Your task to perform on an android device: turn off improve location accuracy Image 0: 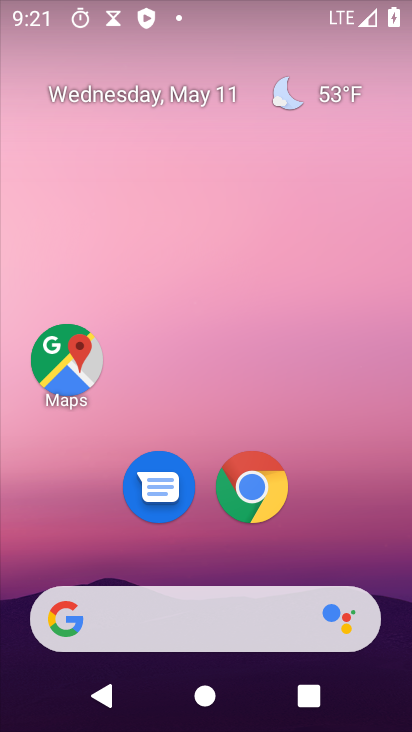
Step 0: drag from (364, 521) to (349, 147)
Your task to perform on an android device: turn off improve location accuracy Image 1: 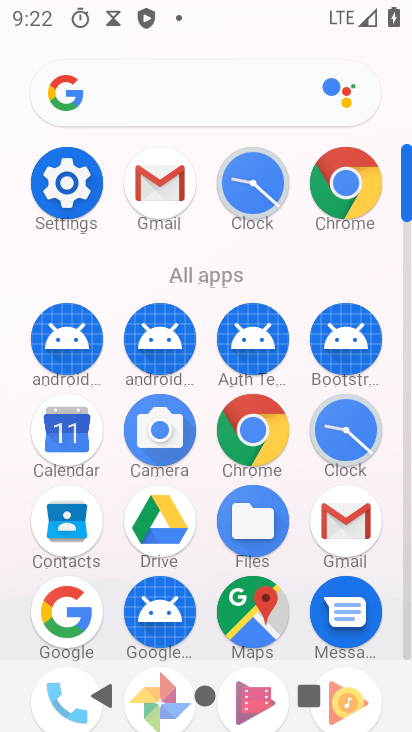
Step 1: click (65, 182)
Your task to perform on an android device: turn off improve location accuracy Image 2: 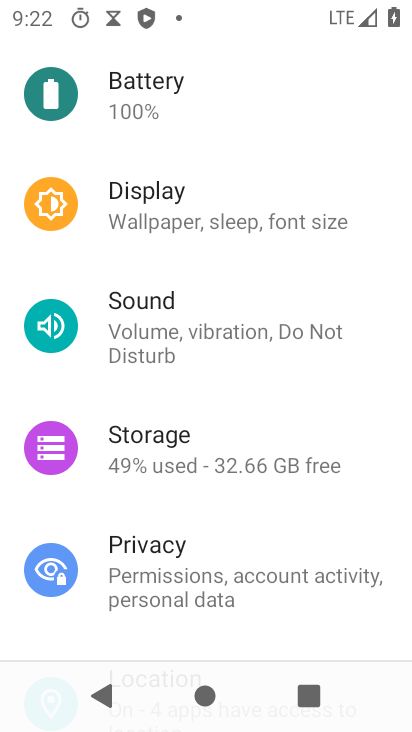
Step 2: drag from (233, 435) to (274, 259)
Your task to perform on an android device: turn off improve location accuracy Image 3: 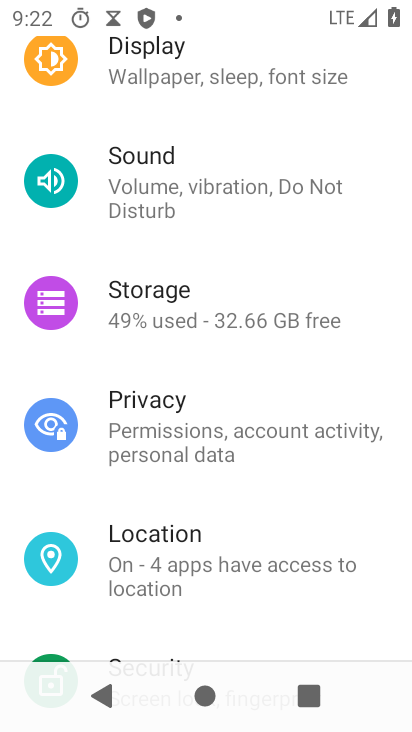
Step 3: click (175, 536)
Your task to perform on an android device: turn off improve location accuracy Image 4: 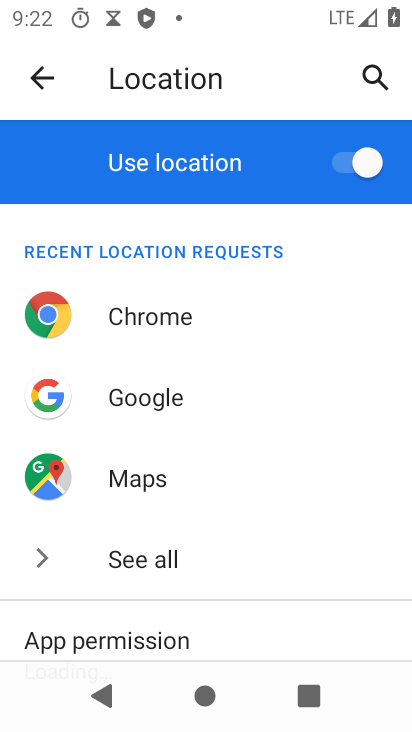
Step 4: drag from (196, 574) to (274, 367)
Your task to perform on an android device: turn off improve location accuracy Image 5: 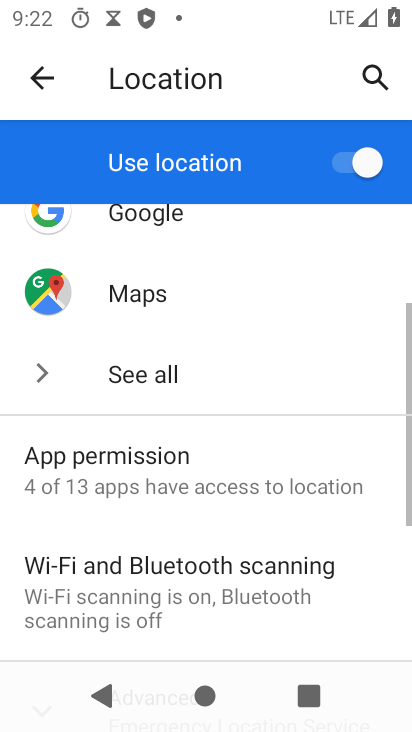
Step 5: drag from (202, 513) to (281, 333)
Your task to perform on an android device: turn off improve location accuracy Image 6: 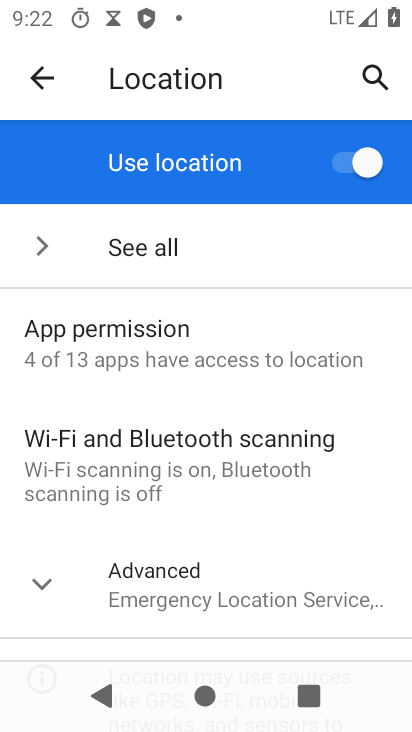
Step 6: click (240, 593)
Your task to perform on an android device: turn off improve location accuracy Image 7: 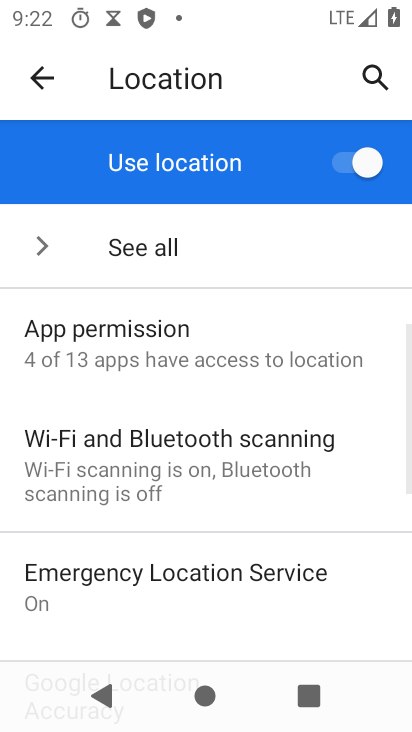
Step 7: drag from (224, 604) to (242, 380)
Your task to perform on an android device: turn off improve location accuracy Image 8: 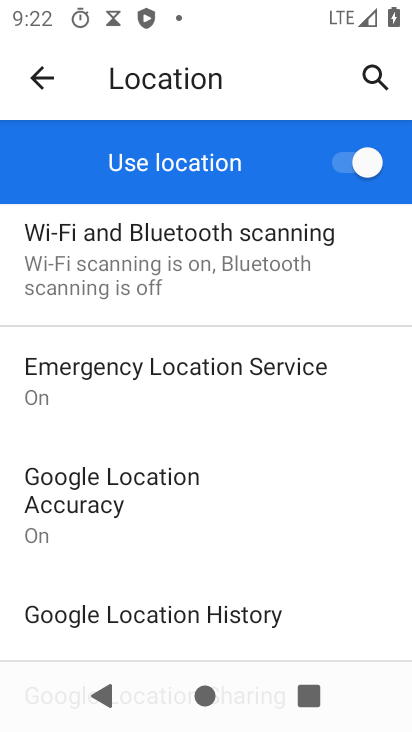
Step 8: click (95, 484)
Your task to perform on an android device: turn off improve location accuracy Image 9: 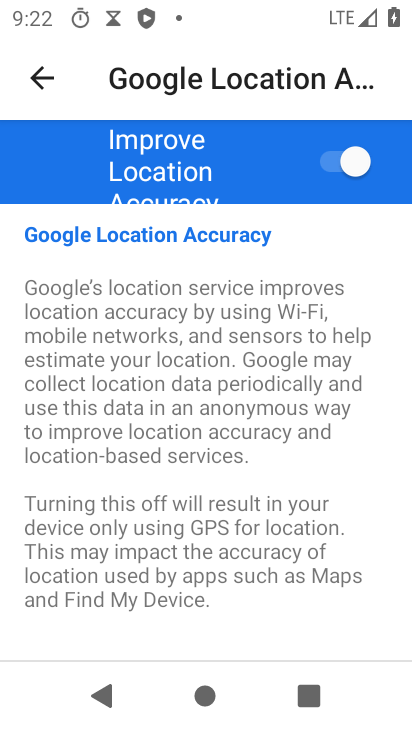
Step 9: click (353, 155)
Your task to perform on an android device: turn off improve location accuracy Image 10: 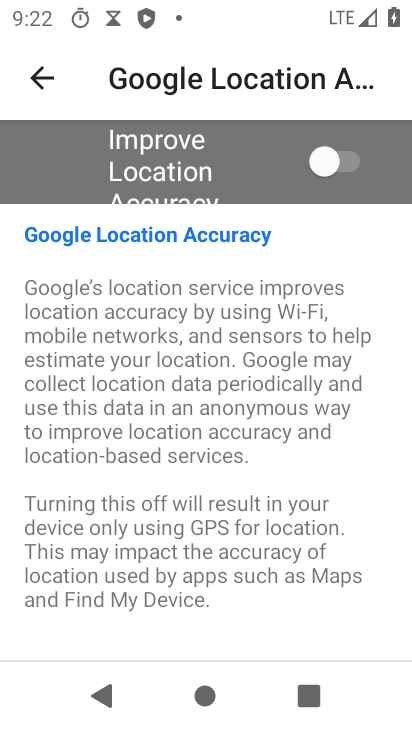
Step 10: task complete